Your task to perform on an android device: Set the phone to "Do not disturb". Image 0: 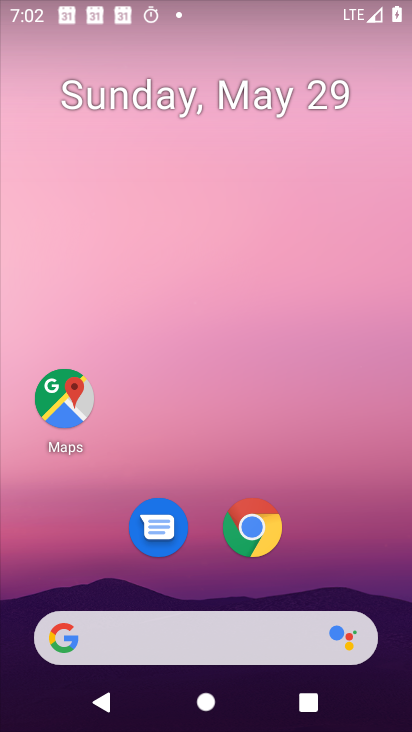
Step 0: drag from (391, 603) to (261, 57)
Your task to perform on an android device: Set the phone to "Do not disturb". Image 1: 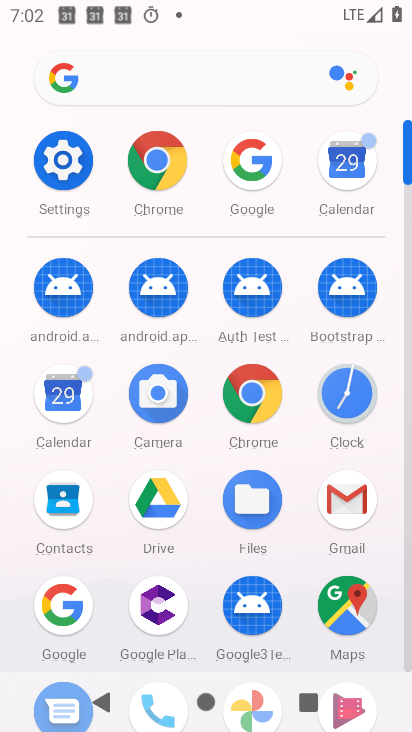
Step 1: press home button
Your task to perform on an android device: Set the phone to "Do not disturb". Image 2: 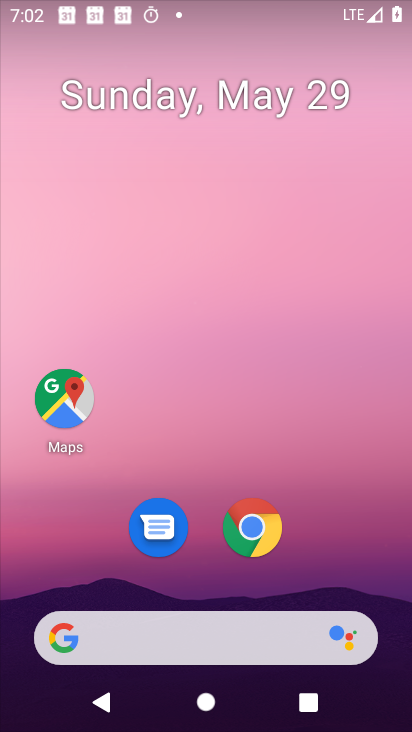
Step 2: drag from (212, 96) to (212, 510)
Your task to perform on an android device: Set the phone to "Do not disturb". Image 3: 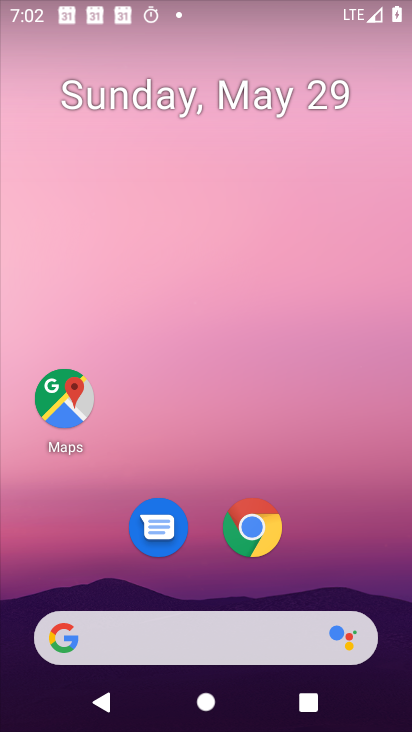
Step 3: drag from (220, 41) to (246, 454)
Your task to perform on an android device: Set the phone to "Do not disturb". Image 4: 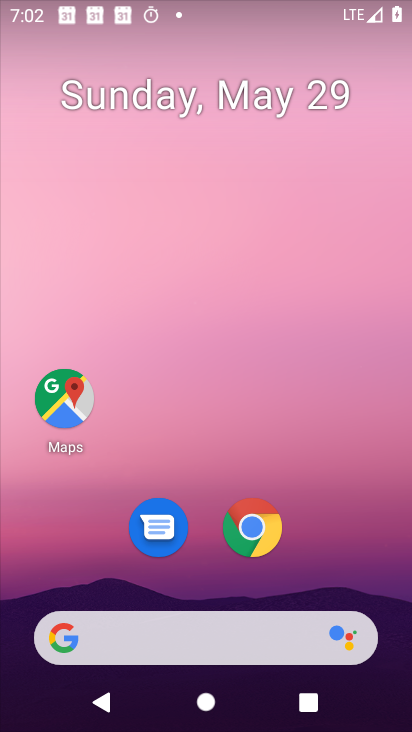
Step 4: drag from (234, 0) to (304, 520)
Your task to perform on an android device: Set the phone to "Do not disturb". Image 5: 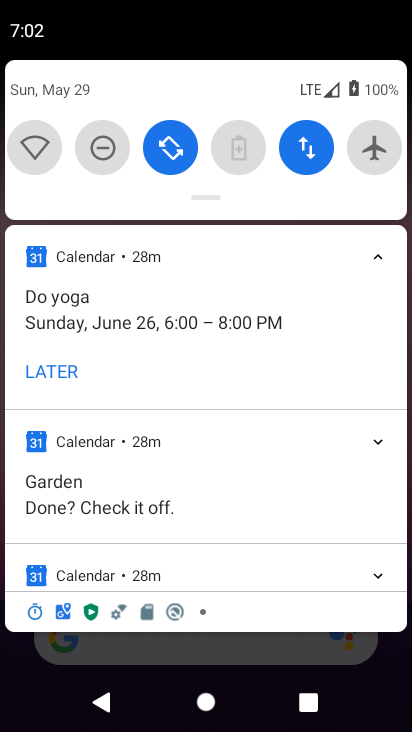
Step 5: click (100, 149)
Your task to perform on an android device: Set the phone to "Do not disturb". Image 6: 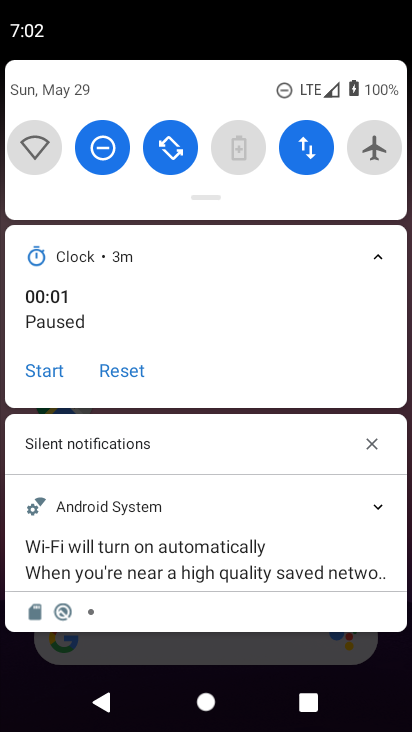
Step 6: task complete